Your task to perform on an android device: Open the stopwatch Image 0: 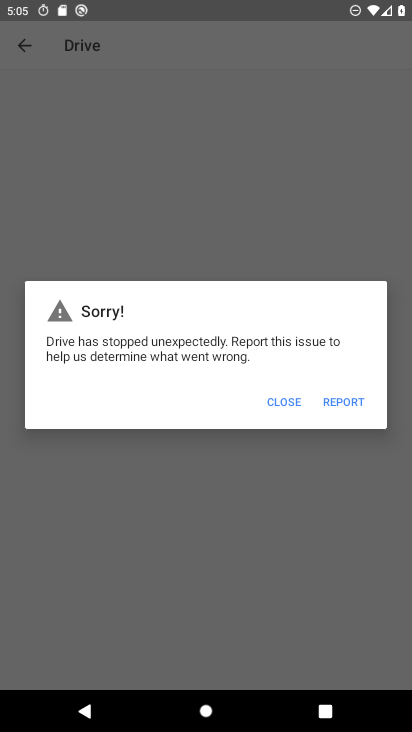
Step 0: press home button
Your task to perform on an android device: Open the stopwatch Image 1: 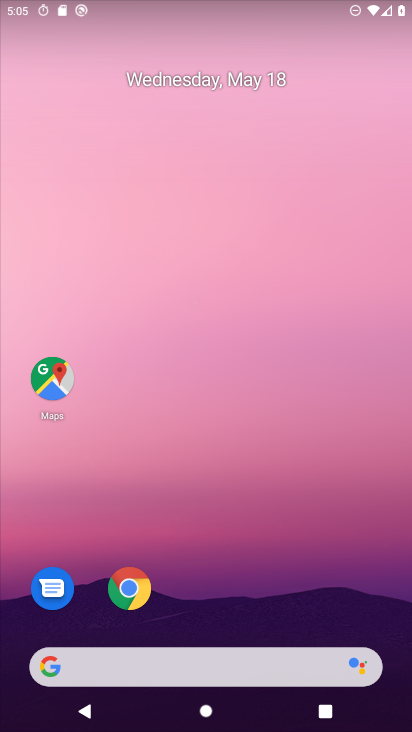
Step 1: drag from (177, 559) to (187, 48)
Your task to perform on an android device: Open the stopwatch Image 2: 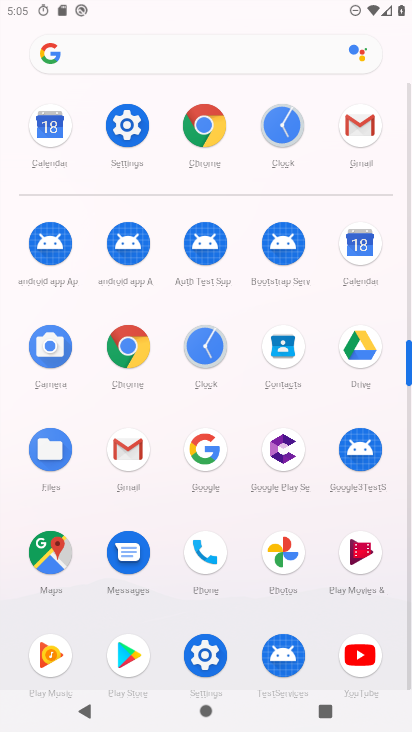
Step 2: click (277, 115)
Your task to perform on an android device: Open the stopwatch Image 3: 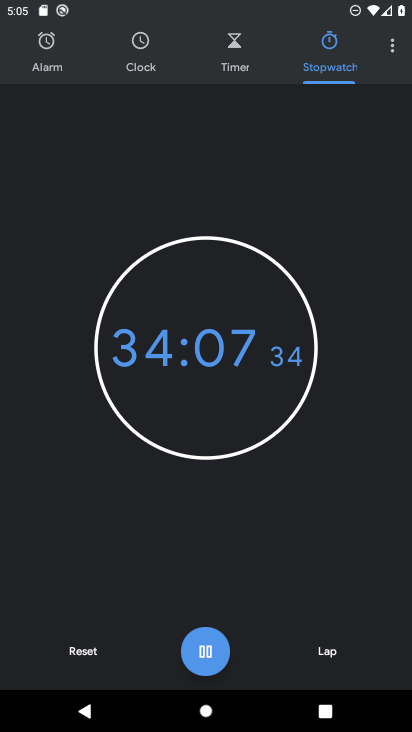
Step 3: task complete